Your task to perform on an android device: When is my next appointment? Image 0: 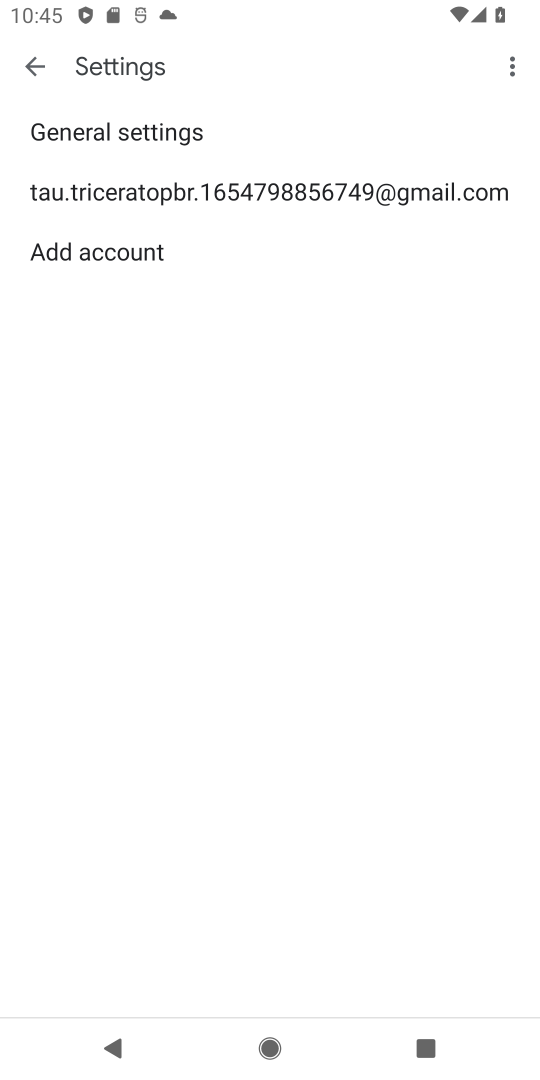
Step 0: press home button
Your task to perform on an android device: When is my next appointment? Image 1: 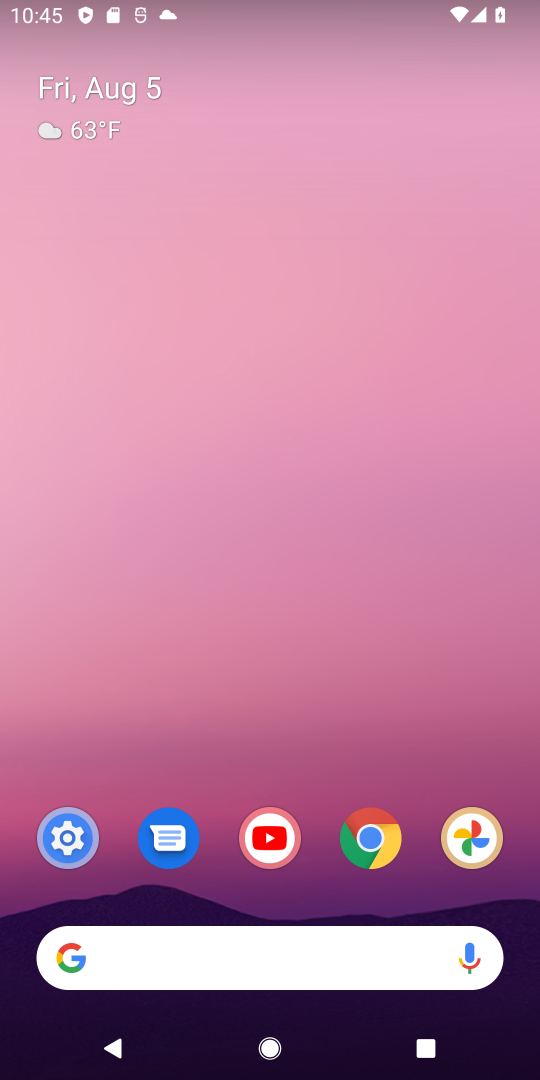
Step 1: drag from (371, 710) to (406, 240)
Your task to perform on an android device: When is my next appointment? Image 2: 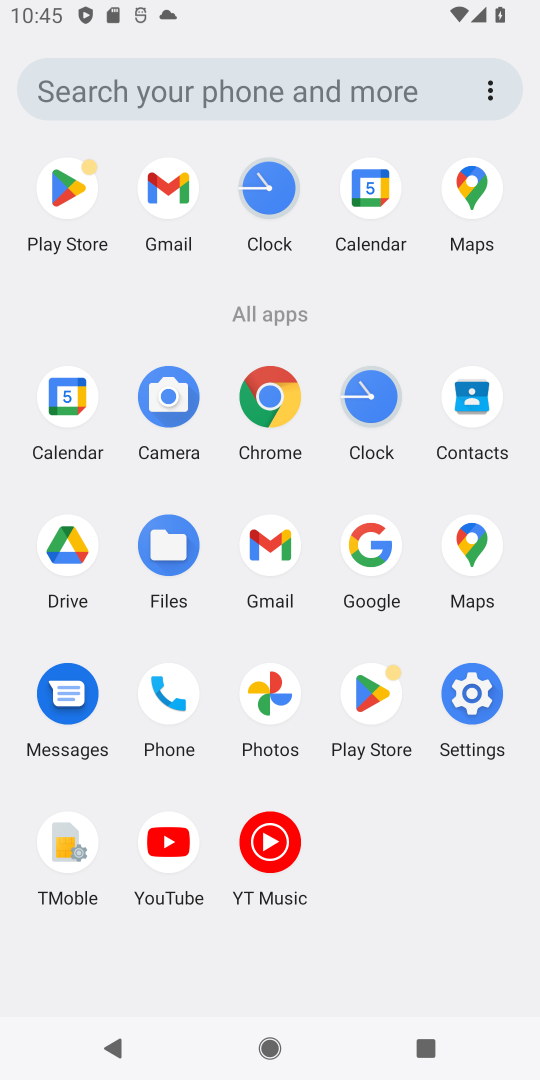
Step 2: click (360, 185)
Your task to perform on an android device: When is my next appointment? Image 3: 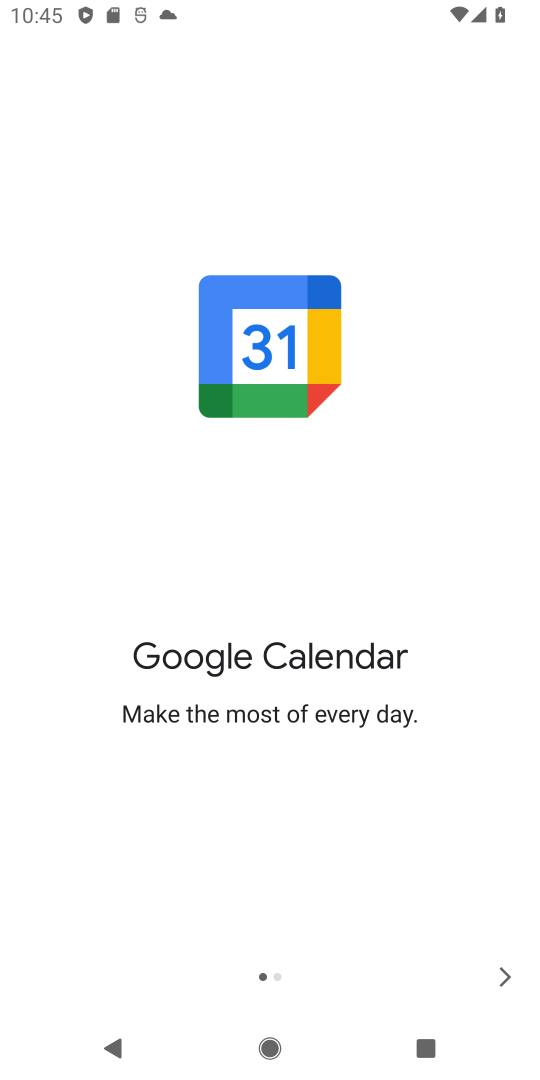
Step 3: click (505, 976)
Your task to perform on an android device: When is my next appointment? Image 4: 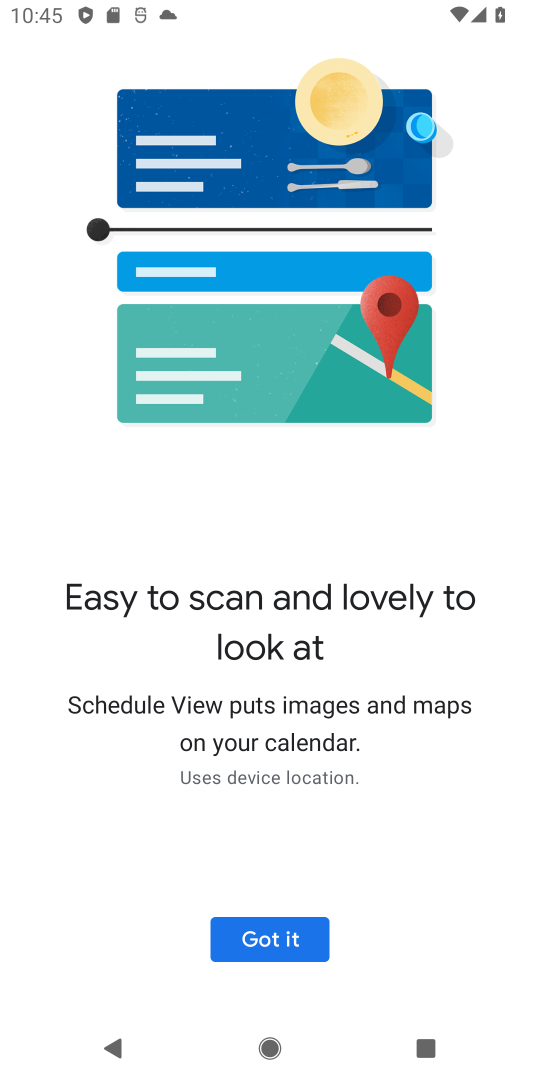
Step 4: click (505, 976)
Your task to perform on an android device: When is my next appointment? Image 5: 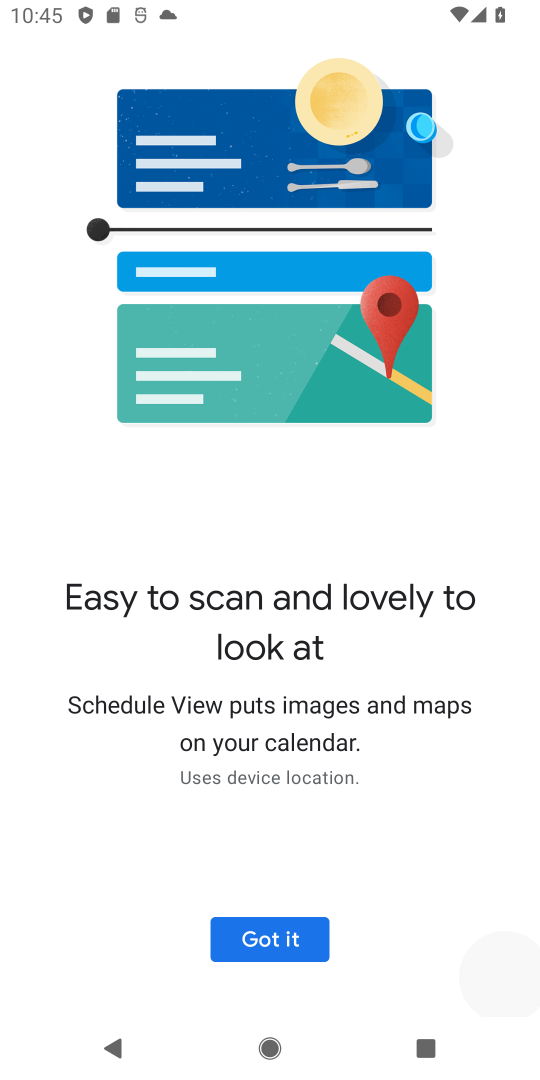
Step 5: click (287, 944)
Your task to perform on an android device: When is my next appointment? Image 6: 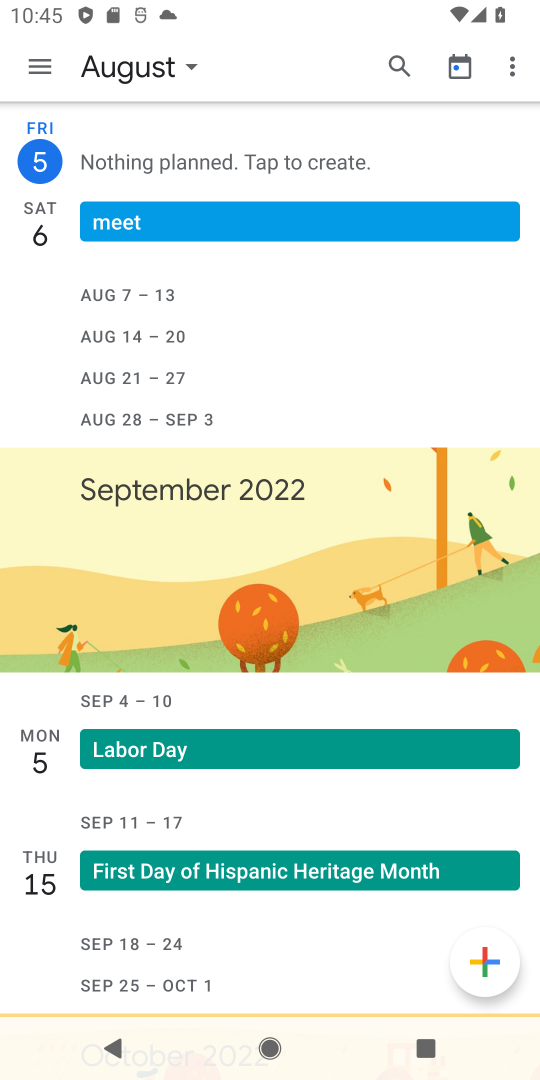
Step 6: task complete